Your task to perform on an android device: Open eBay Image 0: 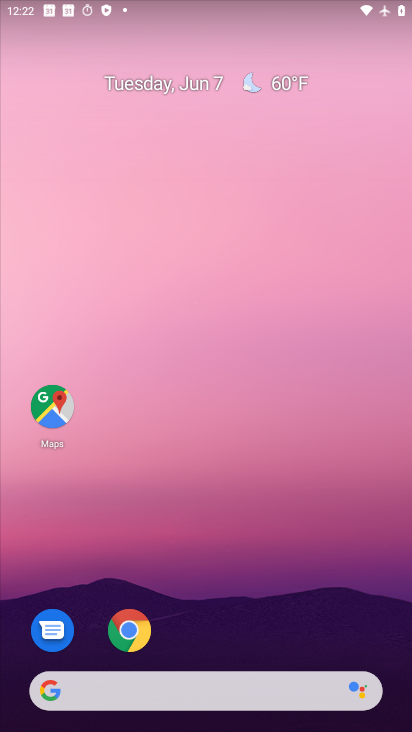
Step 0: drag from (382, 632) to (259, 118)
Your task to perform on an android device: Open eBay Image 1: 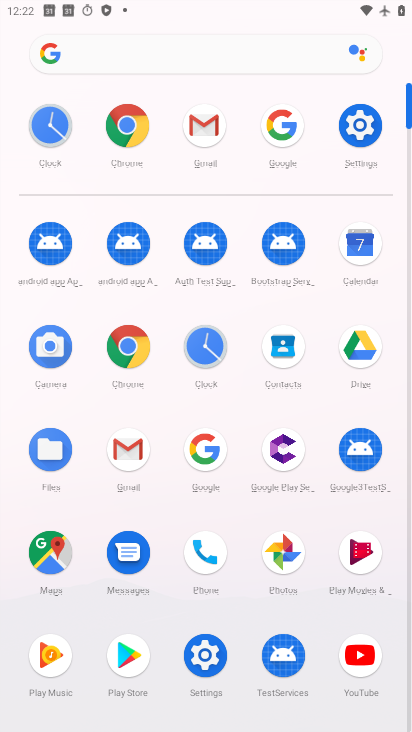
Step 1: click (210, 445)
Your task to perform on an android device: Open eBay Image 2: 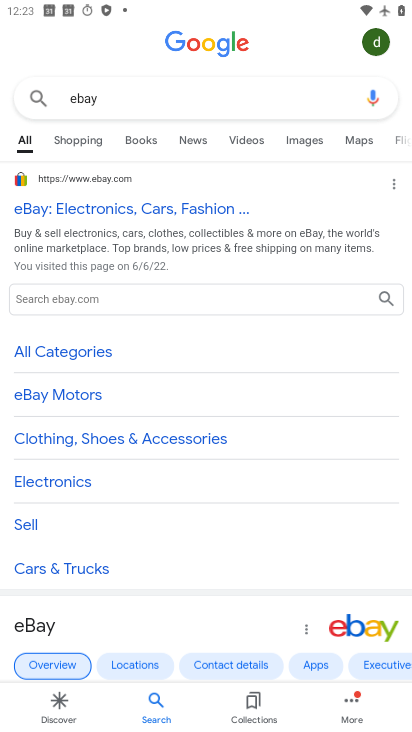
Step 2: task complete